Your task to perform on an android device: create a new album in the google photos Image 0: 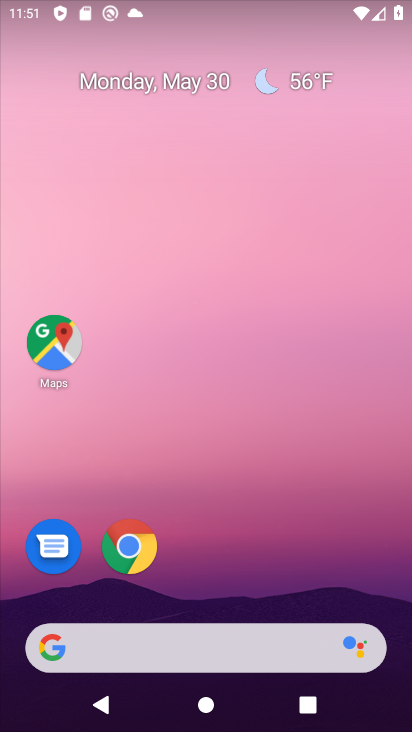
Step 0: drag from (207, 43) to (266, 232)
Your task to perform on an android device: create a new album in the google photos Image 1: 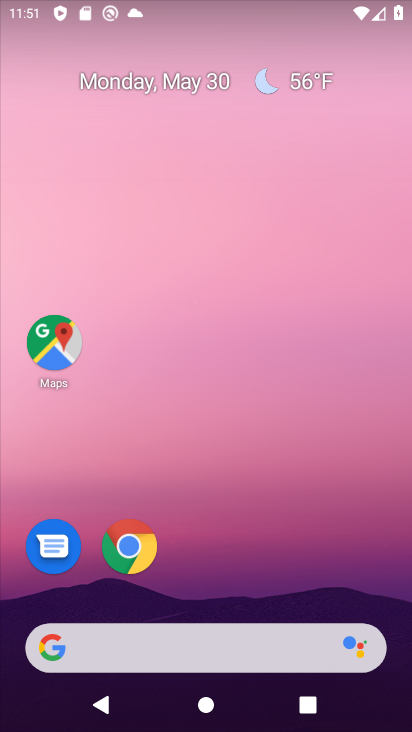
Step 1: drag from (257, 658) to (190, 201)
Your task to perform on an android device: create a new album in the google photos Image 2: 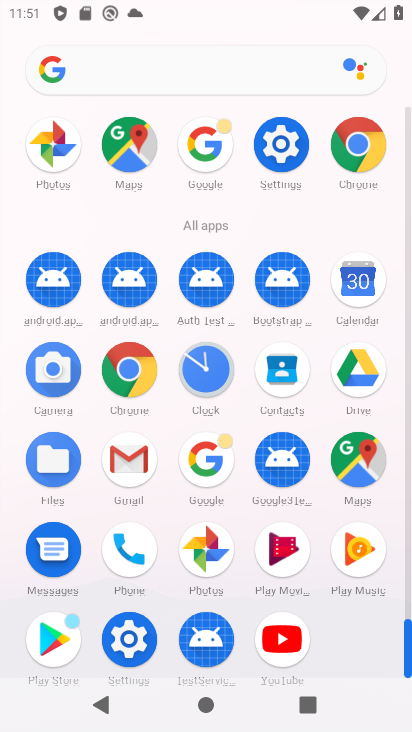
Step 2: click (196, 559)
Your task to perform on an android device: create a new album in the google photos Image 3: 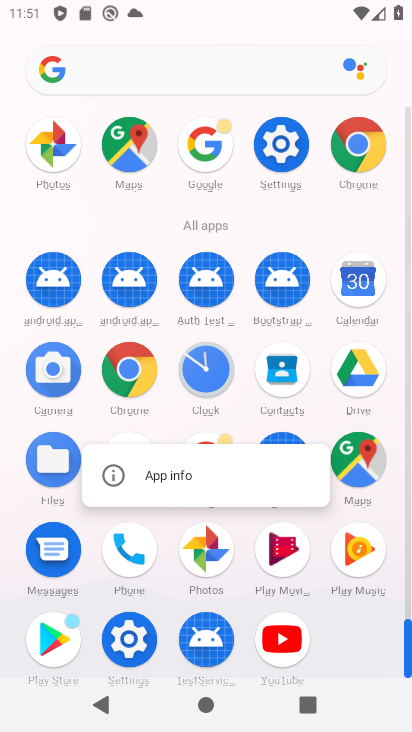
Step 3: click (203, 548)
Your task to perform on an android device: create a new album in the google photos Image 4: 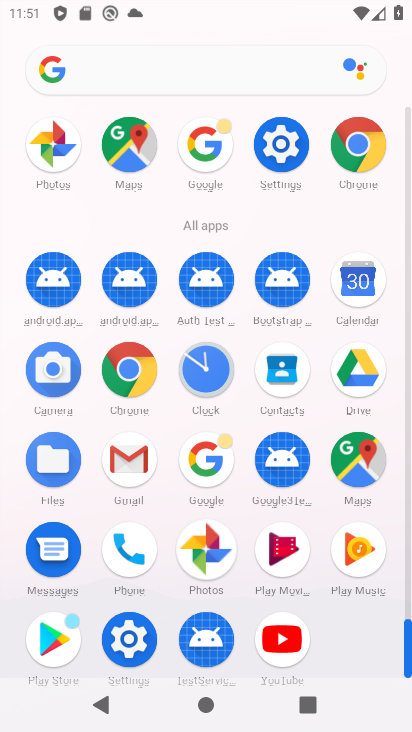
Step 4: click (206, 547)
Your task to perform on an android device: create a new album in the google photos Image 5: 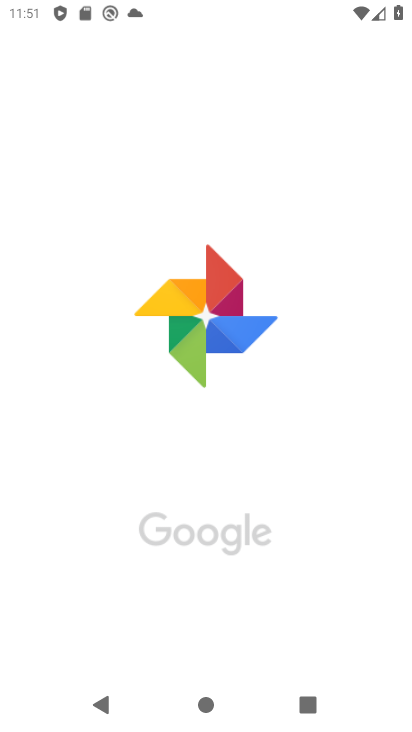
Step 5: click (206, 547)
Your task to perform on an android device: create a new album in the google photos Image 6: 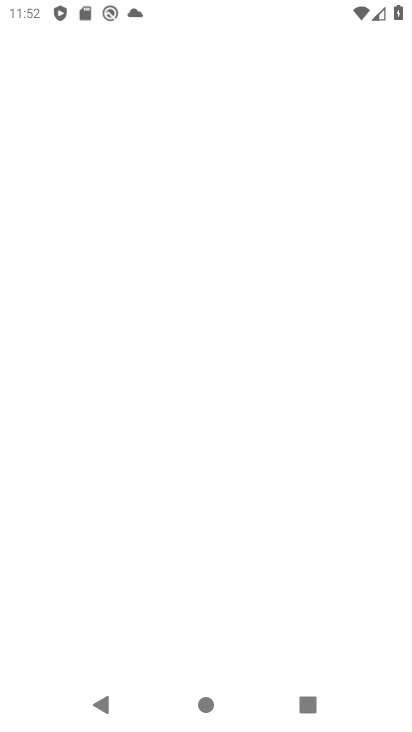
Step 6: click (206, 547)
Your task to perform on an android device: create a new album in the google photos Image 7: 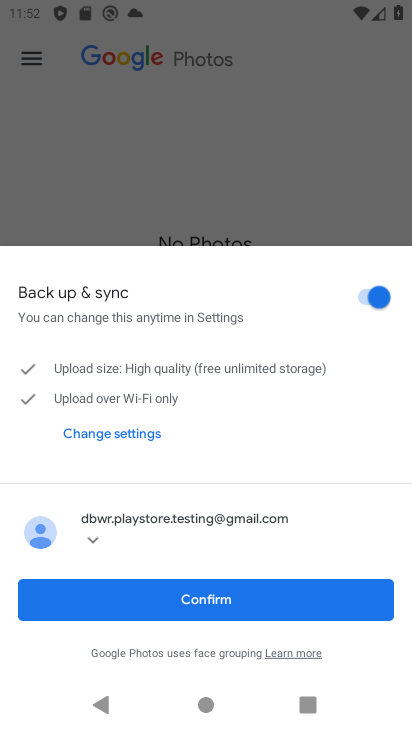
Step 7: click (211, 584)
Your task to perform on an android device: create a new album in the google photos Image 8: 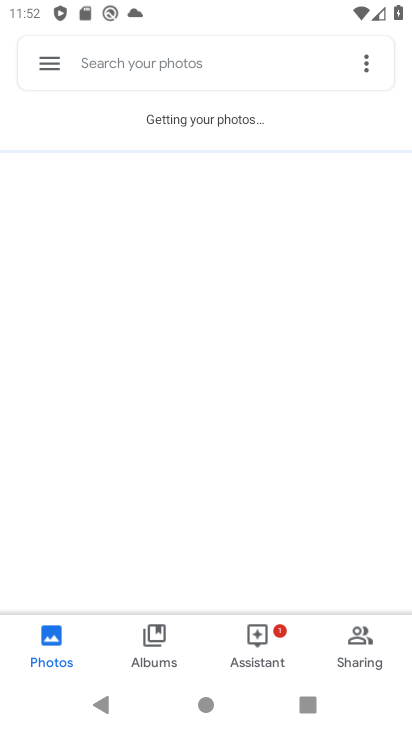
Step 8: click (360, 61)
Your task to perform on an android device: create a new album in the google photos Image 9: 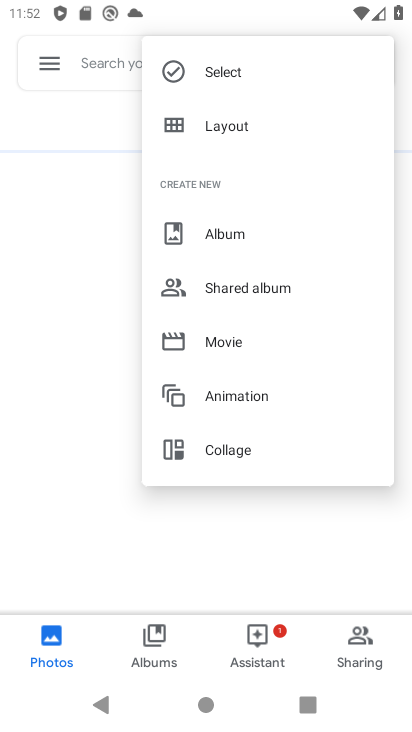
Step 9: click (212, 232)
Your task to perform on an android device: create a new album in the google photos Image 10: 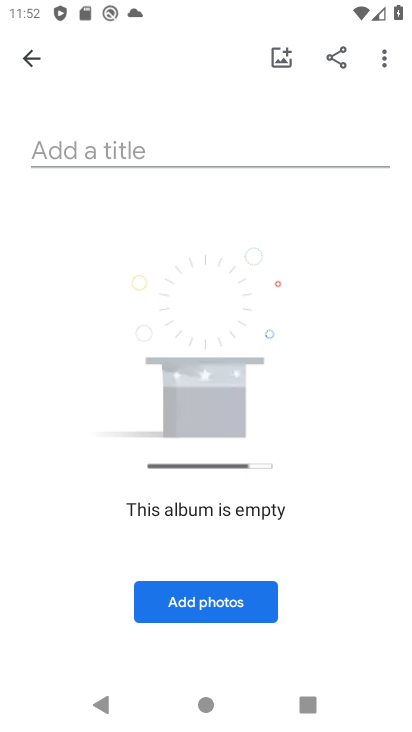
Step 10: click (199, 600)
Your task to perform on an android device: create a new album in the google photos Image 11: 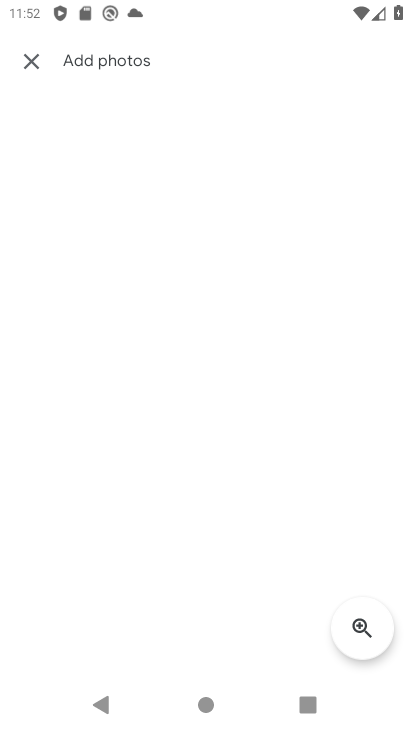
Step 11: click (34, 147)
Your task to perform on an android device: create a new album in the google photos Image 12: 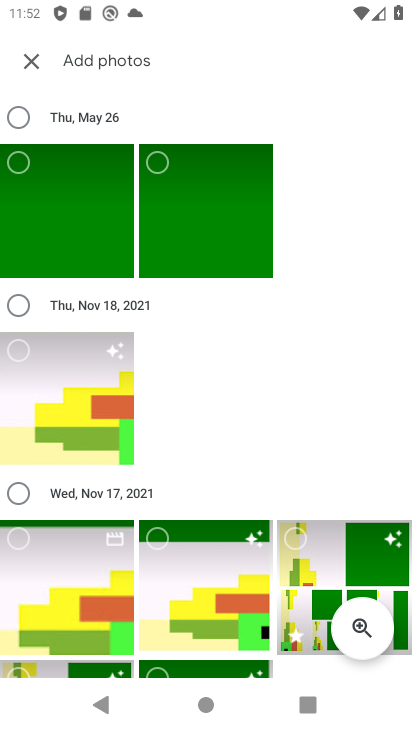
Step 12: click (26, 165)
Your task to perform on an android device: create a new album in the google photos Image 13: 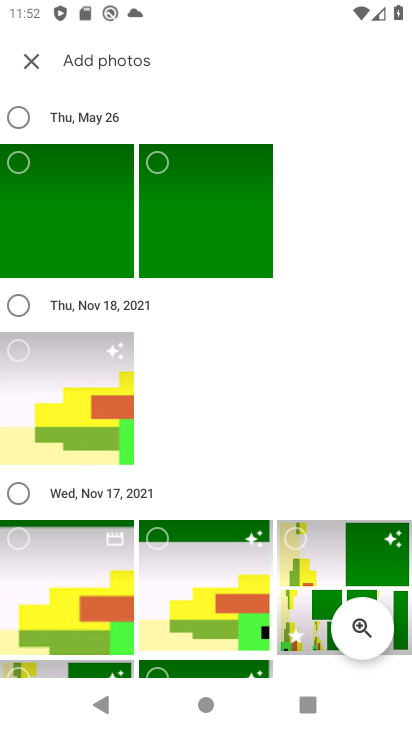
Step 13: click (26, 165)
Your task to perform on an android device: create a new album in the google photos Image 14: 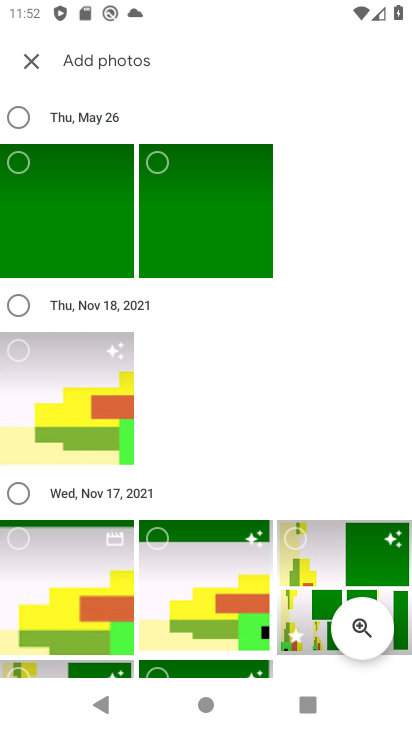
Step 14: click (19, 121)
Your task to perform on an android device: create a new album in the google photos Image 15: 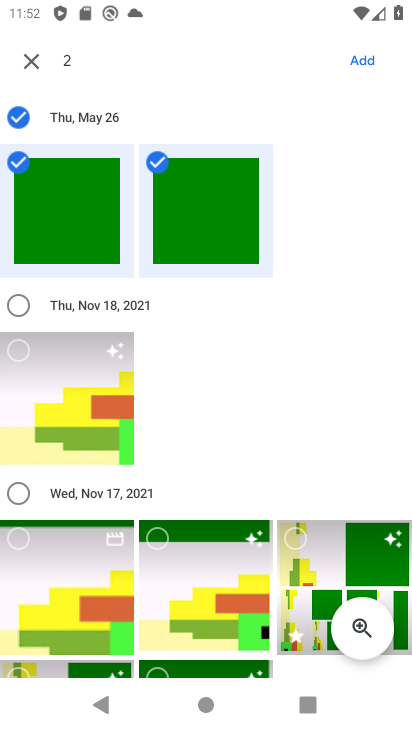
Step 15: click (360, 60)
Your task to perform on an android device: create a new album in the google photos Image 16: 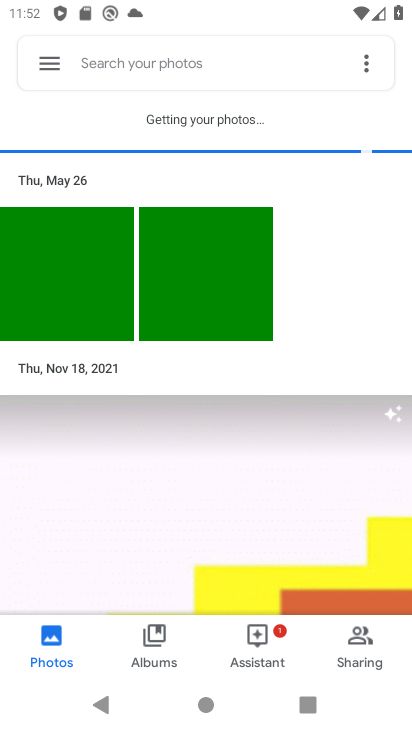
Step 16: task complete